Your task to perform on an android device: Search for Mexican restaurants on Maps Image 0: 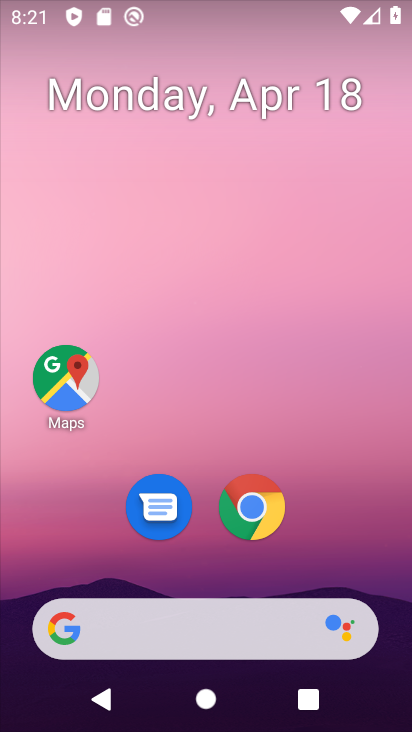
Step 0: click (68, 366)
Your task to perform on an android device: Search for Mexican restaurants on Maps Image 1: 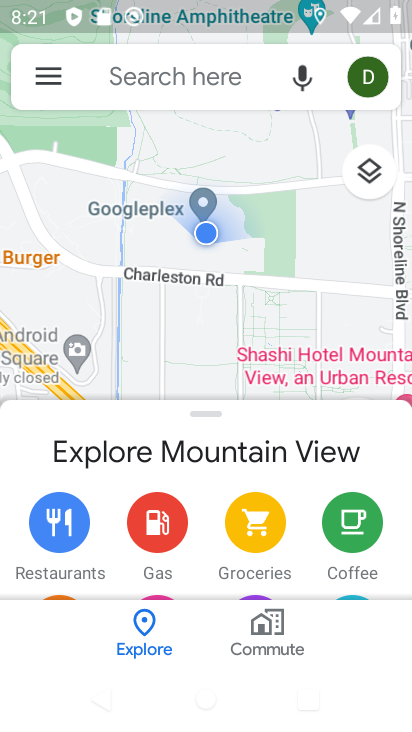
Step 1: click (172, 69)
Your task to perform on an android device: Search for Mexican restaurants on Maps Image 2: 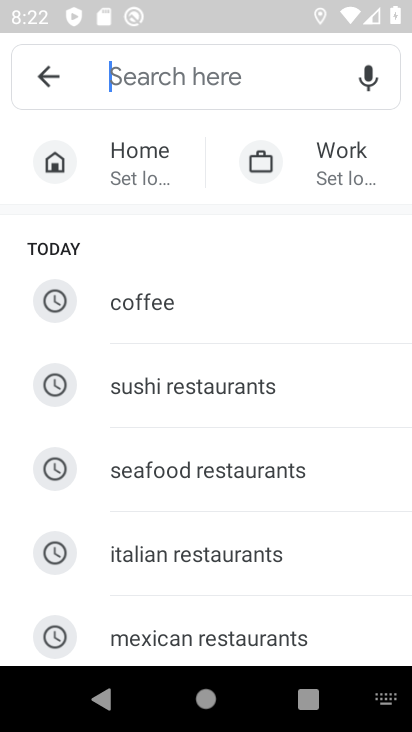
Step 2: click (179, 637)
Your task to perform on an android device: Search for Mexican restaurants on Maps Image 3: 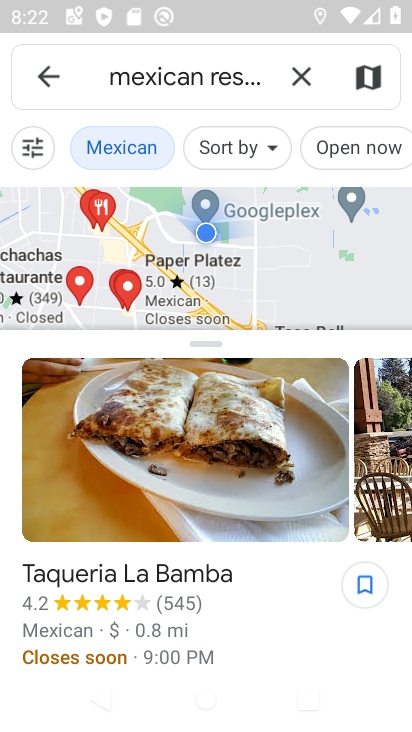
Step 3: task complete